Your task to perform on an android device: toggle notifications settings in the gmail app Image 0: 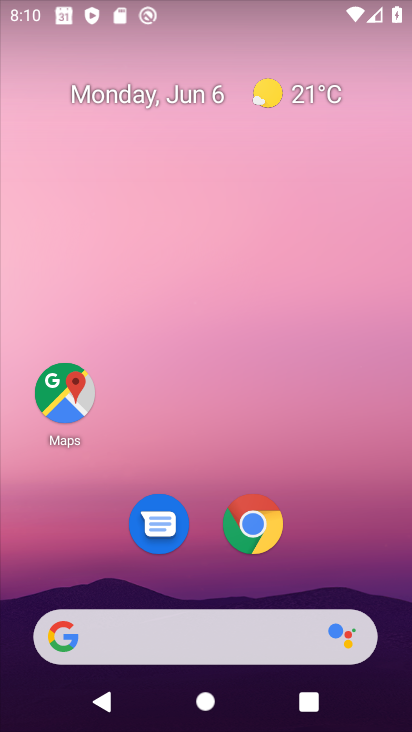
Step 0: drag from (196, 454) to (257, 14)
Your task to perform on an android device: toggle notifications settings in the gmail app Image 1: 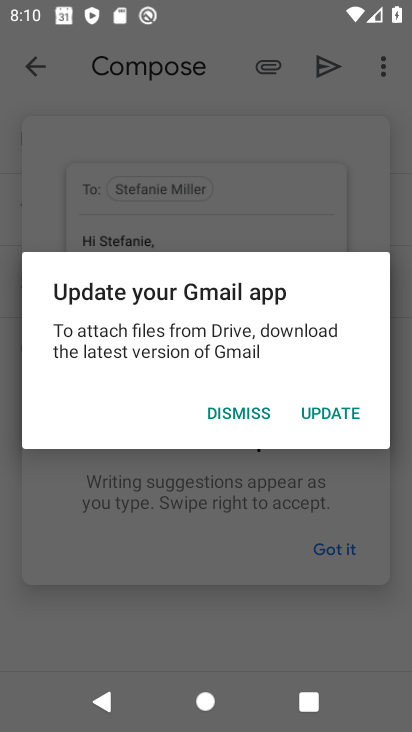
Step 1: press home button
Your task to perform on an android device: toggle notifications settings in the gmail app Image 2: 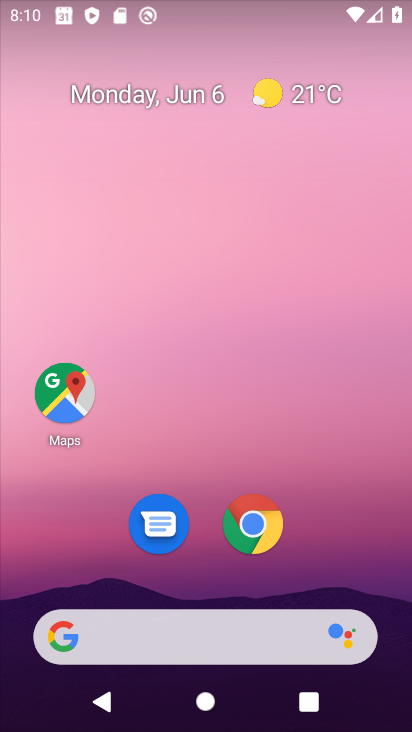
Step 2: drag from (330, 534) to (240, 53)
Your task to perform on an android device: toggle notifications settings in the gmail app Image 3: 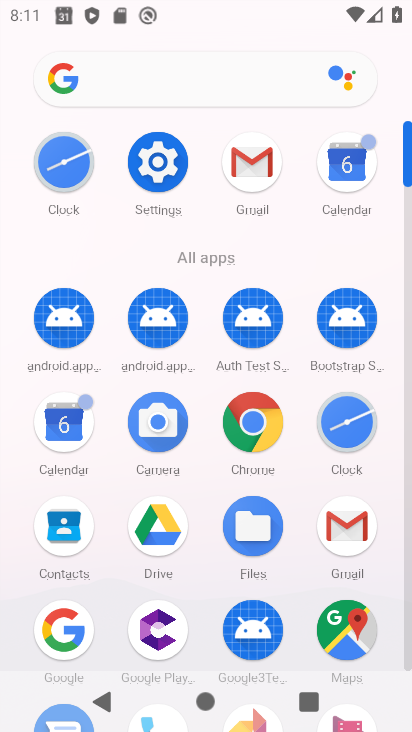
Step 3: click (250, 164)
Your task to perform on an android device: toggle notifications settings in the gmail app Image 4: 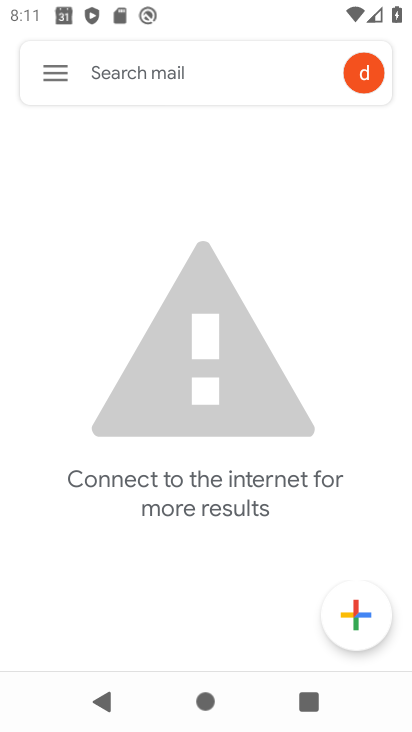
Step 4: click (56, 76)
Your task to perform on an android device: toggle notifications settings in the gmail app Image 5: 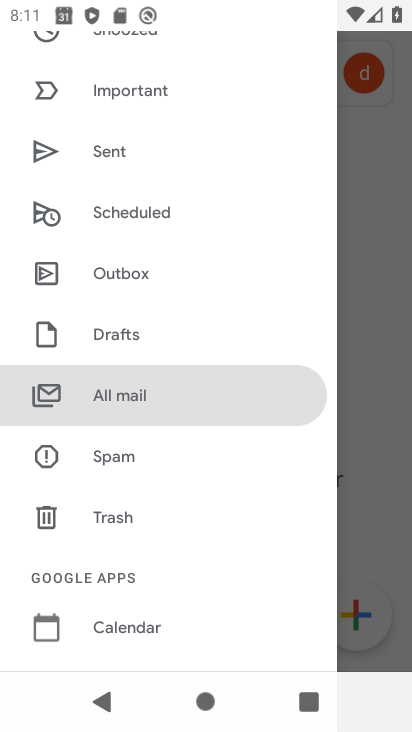
Step 5: drag from (146, 461) to (245, 48)
Your task to perform on an android device: toggle notifications settings in the gmail app Image 6: 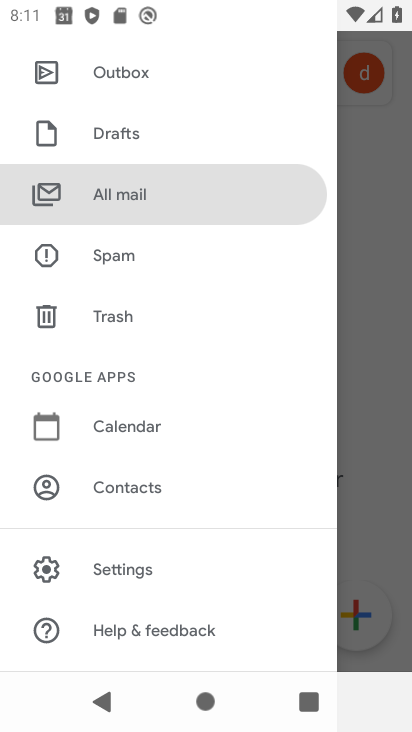
Step 6: click (148, 562)
Your task to perform on an android device: toggle notifications settings in the gmail app Image 7: 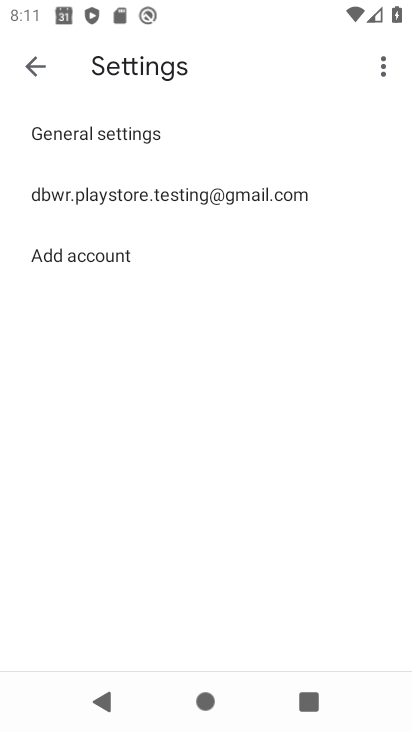
Step 7: click (256, 204)
Your task to perform on an android device: toggle notifications settings in the gmail app Image 8: 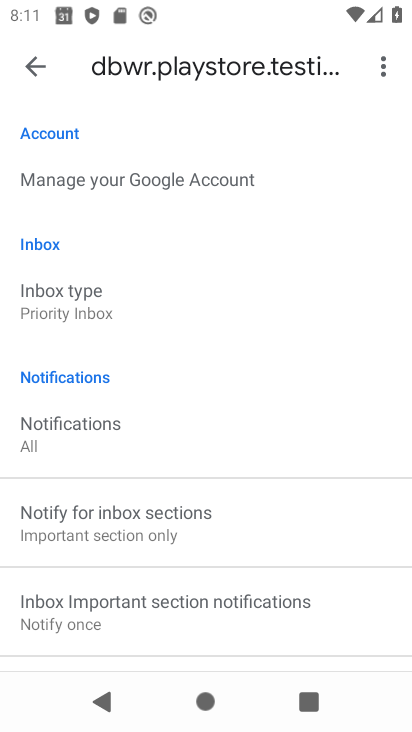
Step 8: drag from (259, 522) to (300, 251)
Your task to perform on an android device: toggle notifications settings in the gmail app Image 9: 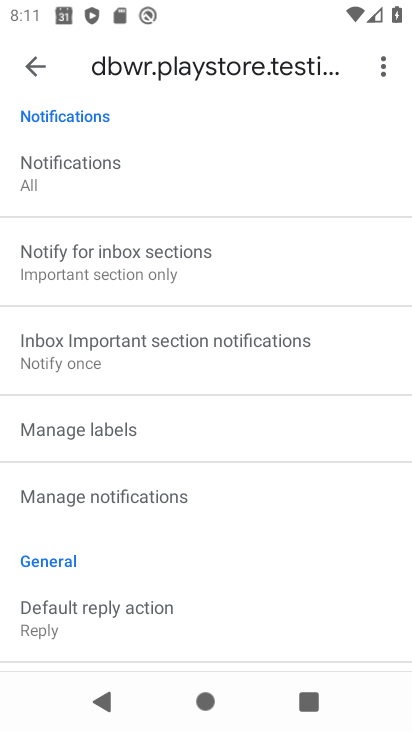
Step 9: click (263, 480)
Your task to perform on an android device: toggle notifications settings in the gmail app Image 10: 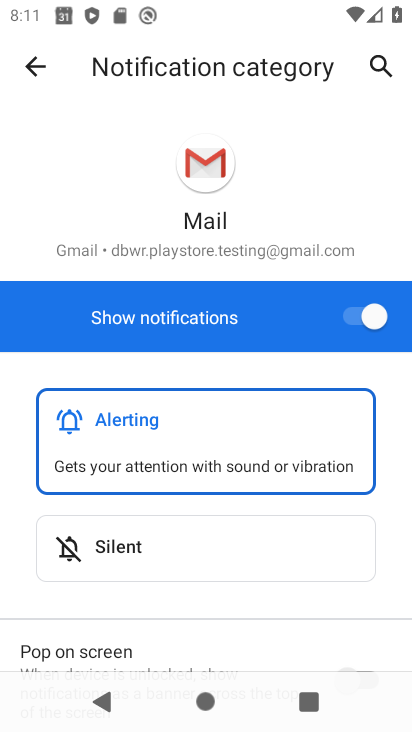
Step 10: click (359, 317)
Your task to perform on an android device: toggle notifications settings in the gmail app Image 11: 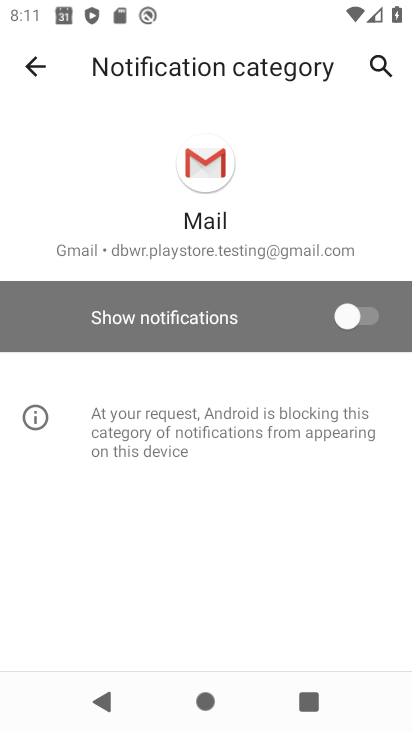
Step 11: task complete